Your task to perform on an android device: Open calendar and show me the third week of next month Image 0: 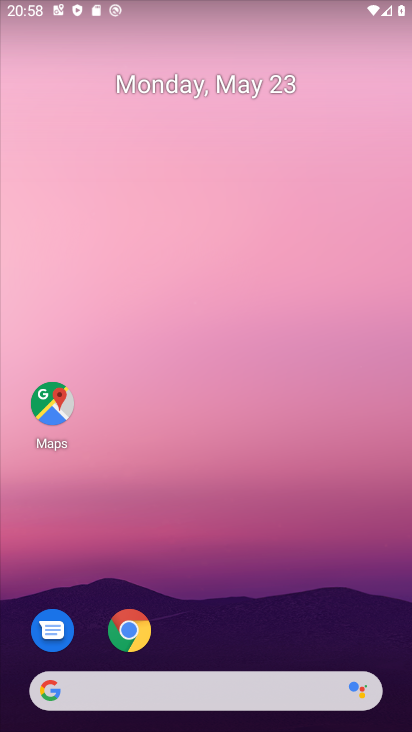
Step 0: drag from (163, 666) to (231, 230)
Your task to perform on an android device: Open calendar and show me the third week of next month Image 1: 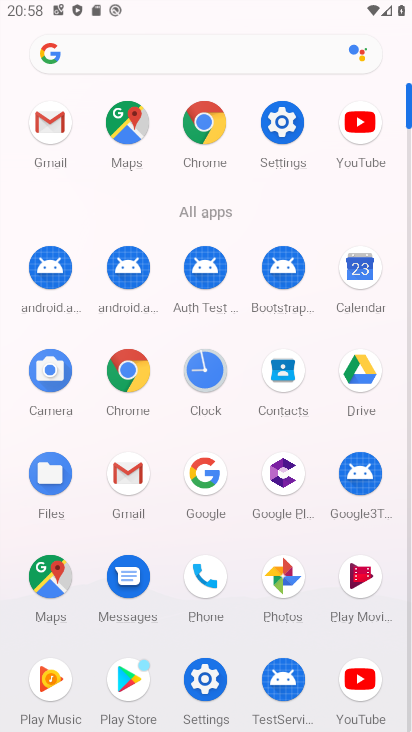
Step 1: click (355, 276)
Your task to perform on an android device: Open calendar and show me the third week of next month Image 2: 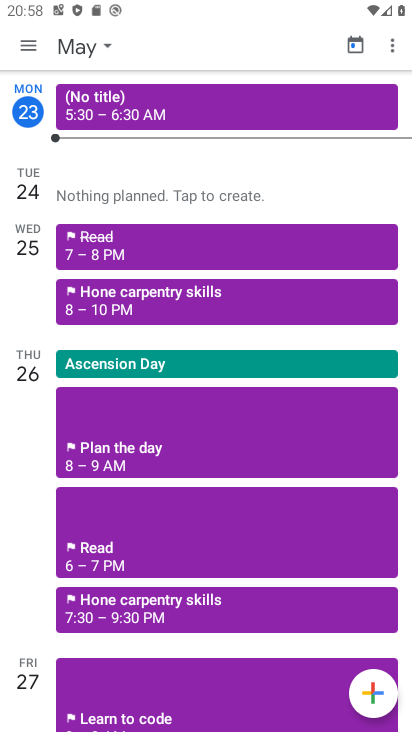
Step 2: click (87, 45)
Your task to perform on an android device: Open calendar and show me the third week of next month Image 3: 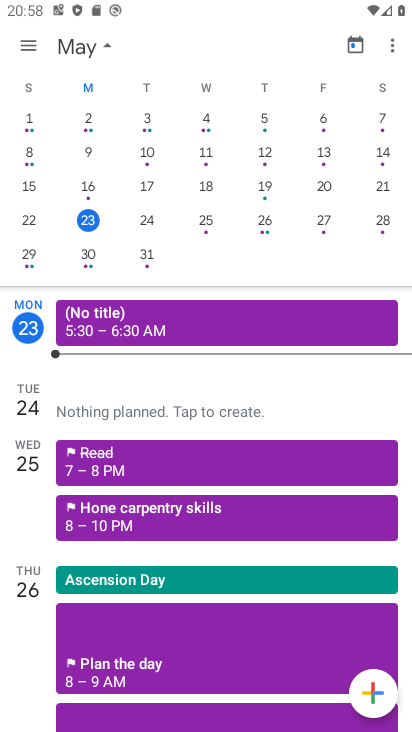
Step 3: drag from (307, 189) to (1, 132)
Your task to perform on an android device: Open calendar and show me the third week of next month Image 4: 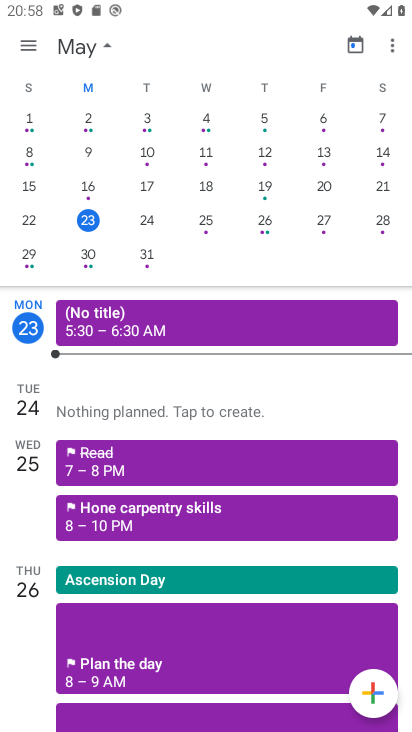
Step 4: drag from (370, 174) to (10, 123)
Your task to perform on an android device: Open calendar and show me the third week of next month Image 5: 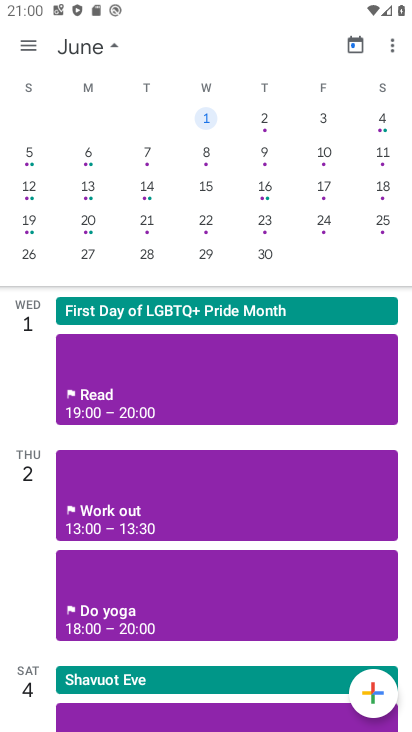
Step 5: click (27, 190)
Your task to perform on an android device: Open calendar and show me the third week of next month Image 6: 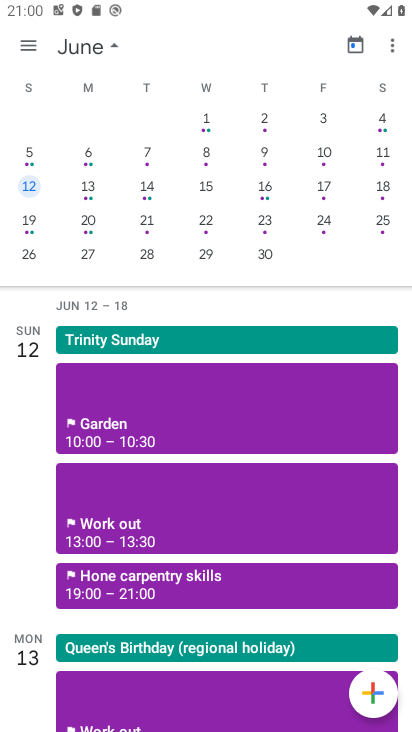
Step 6: task complete